Your task to perform on an android device: Open Google Image 0: 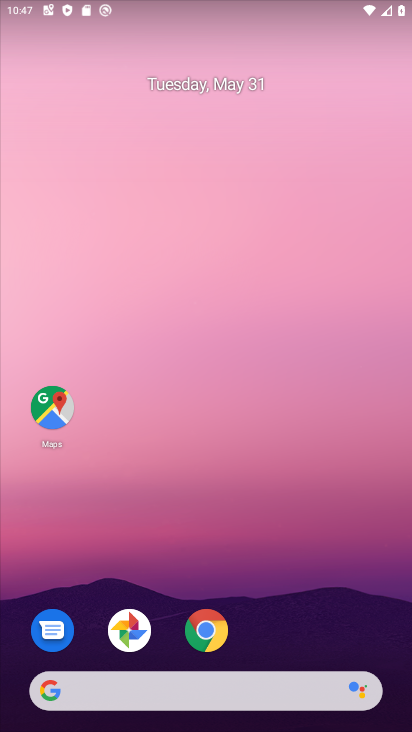
Step 0: drag from (260, 639) to (233, 225)
Your task to perform on an android device: Open Google Image 1: 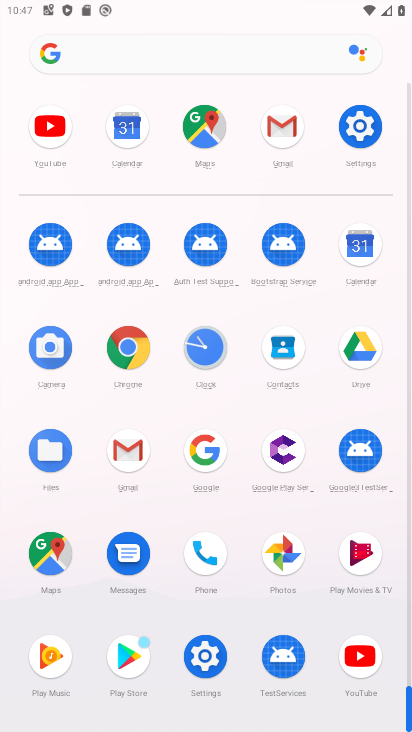
Step 1: click (197, 444)
Your task to perform on an android device: Open Google Image 2: 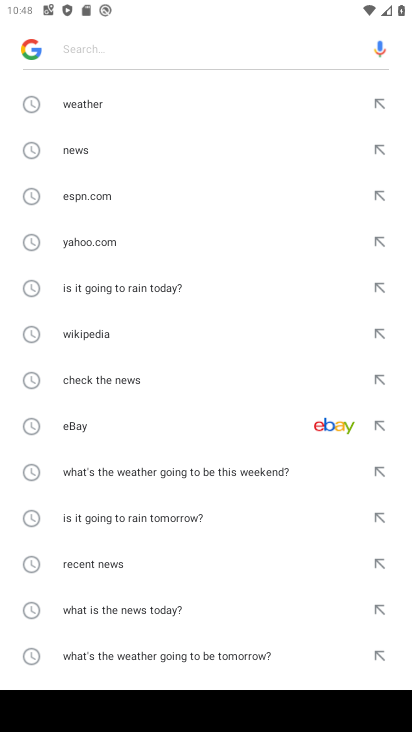
Step 2: task complete